Your task to perform on an android device: Go to Yahoo.com Image 0: 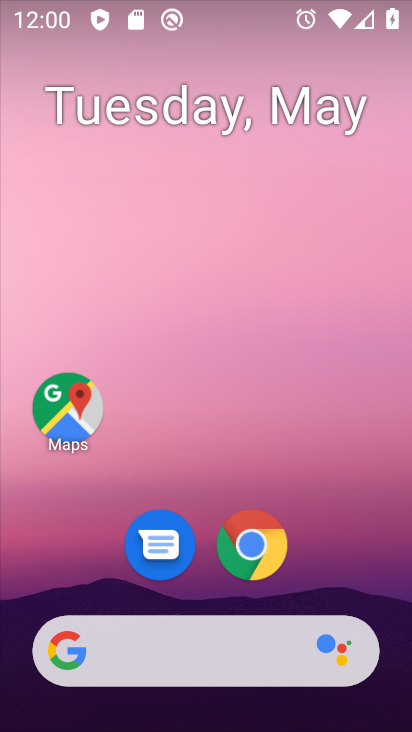
Step 0: click (255, 537)
Your task to perform on an android device: Go to Yahoo.com Image 1: 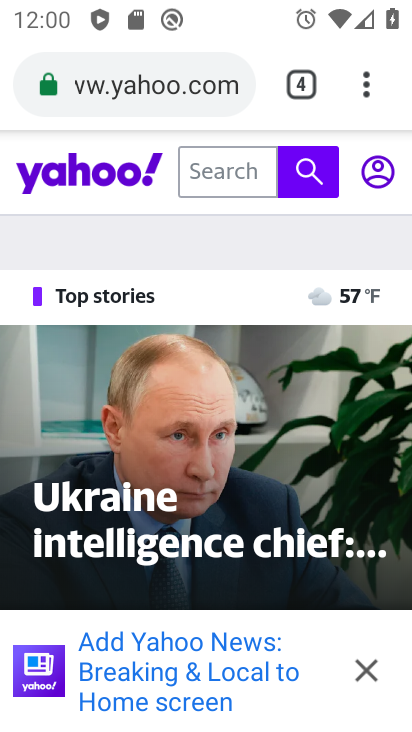
Step 1: task complete